Your task to perform on an android device: Go to ESPN.com Image 0: 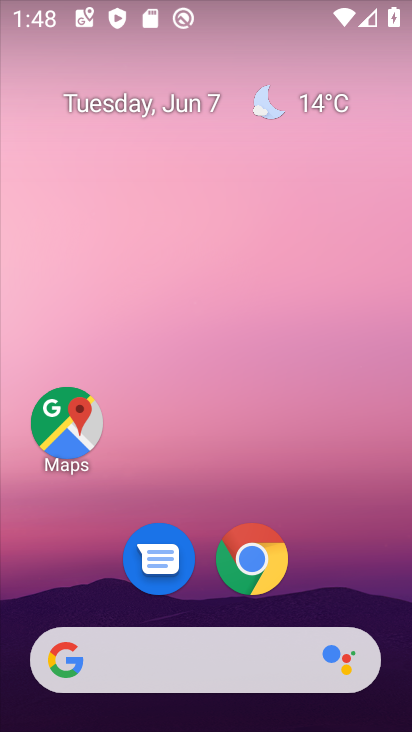
Step 0: drag from (315, 544) to (241, 41)
Your task to perform on an android device: Go to ESPN.com Image 1: 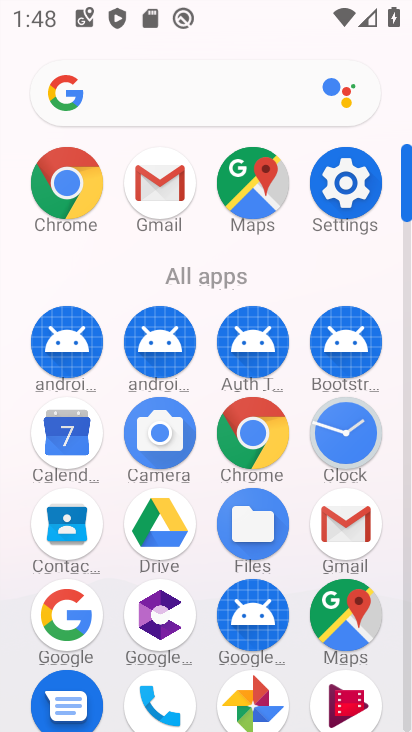
Step 1: drag from (0, 539) to (32, 231)
Your task to perform on an android device: Go to ESPN.com Image 2: 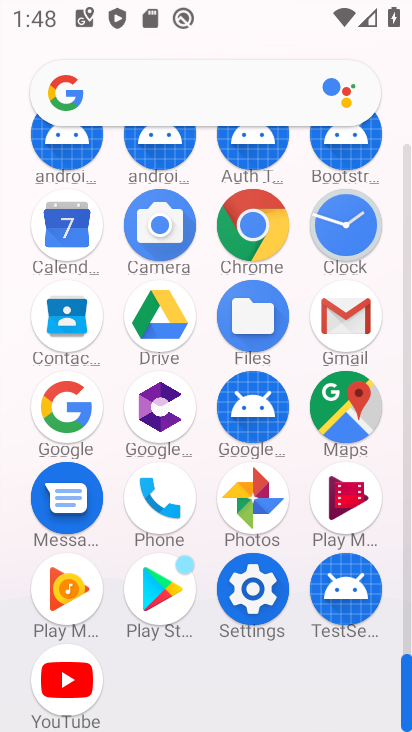
Step 2: click (251, 221)
Your task to perform on an android device: Go to ESPN.com Image 3: 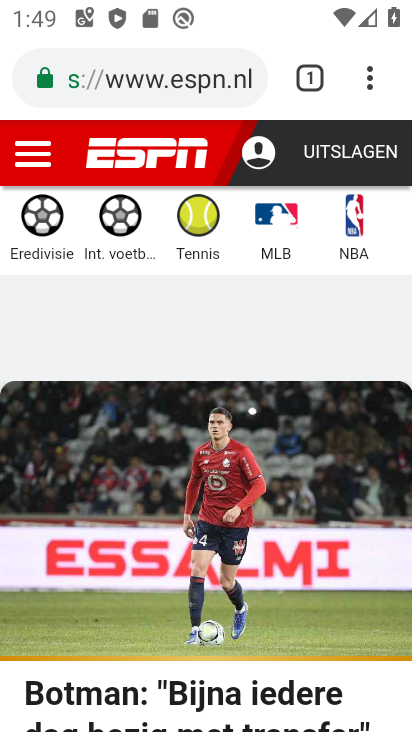
Step 3: task complete